Your task to perform on an android device: Play the last video I watched on Youtube Image 0: 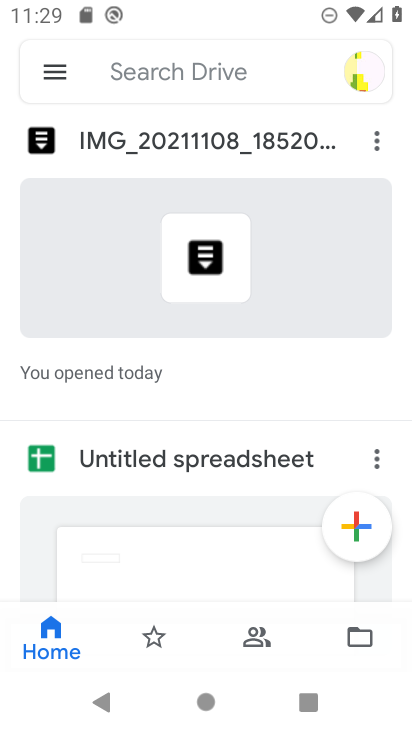
Step 0: press home button
Your task to perform on an android device: Play the last video I watched on Youtube Image 1: 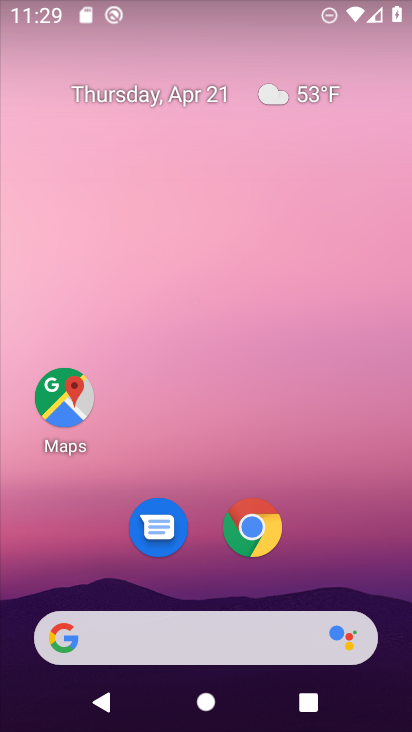
Step 1: drag from (353, 571) to (348, 130)
Your task to perform on an android device: Play the last video I watched on Youtube Image 2: 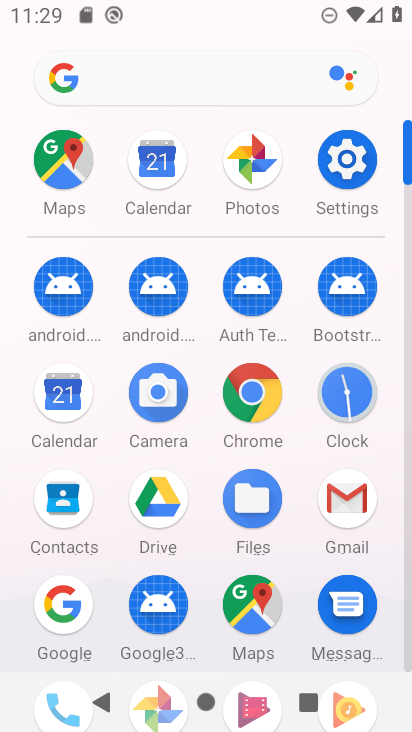
Step 2: drag from (391, 570) to (387, 245)
Your task to perform on an android device: Play the last video I watched on Youtube Image 3: 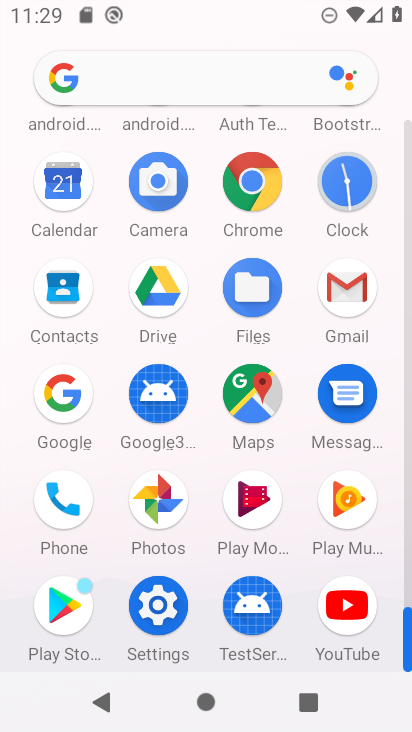
Step 3: click (347, 610)
Your task to perform on an android device: Play the last video I watched on Youtube Image 4: 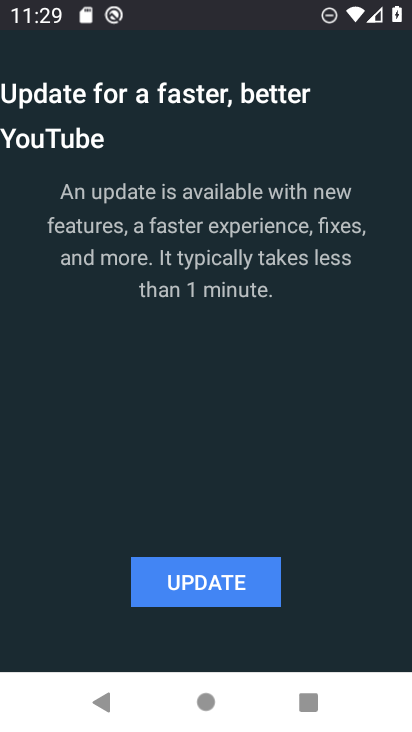
Step 4: click (253, 584)
Your task to perform on an android device: Play the last video I watched on Youtube Image 5: 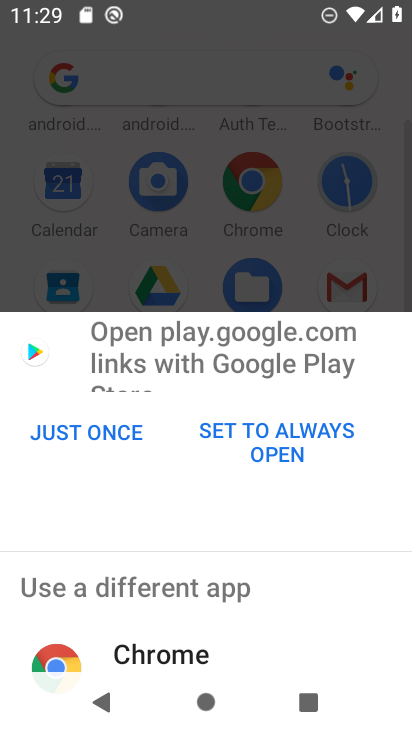
Step 5: click (113, 429)
Your task to perform on an android device: Play the last video I watched on Youtube Image 6: 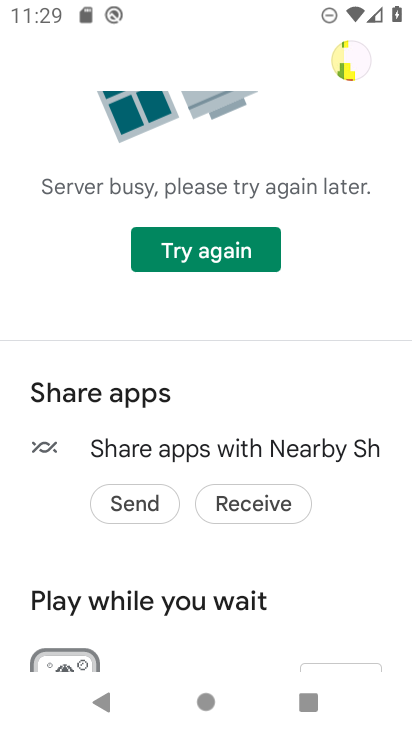
Step 6: task complete